Your task to perform on an android device: move a message to another label in the gmail app Image 0: 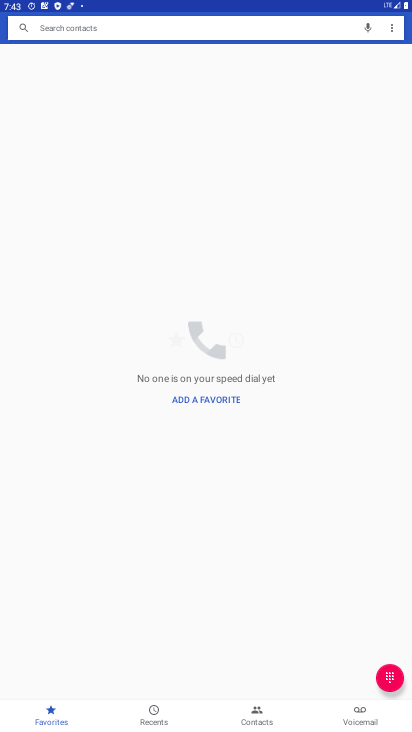
Step 0: press home button
Your task to perform on an android device: move a message to another label in the gmail app Image 1: 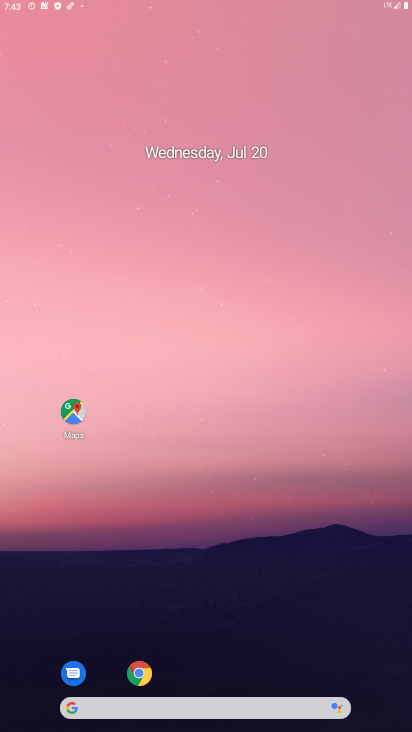
Step 1: drag from (396, 689) to (221, 37)
Your task to perform on an android device: move a message to another label in the gmail app Image 2: 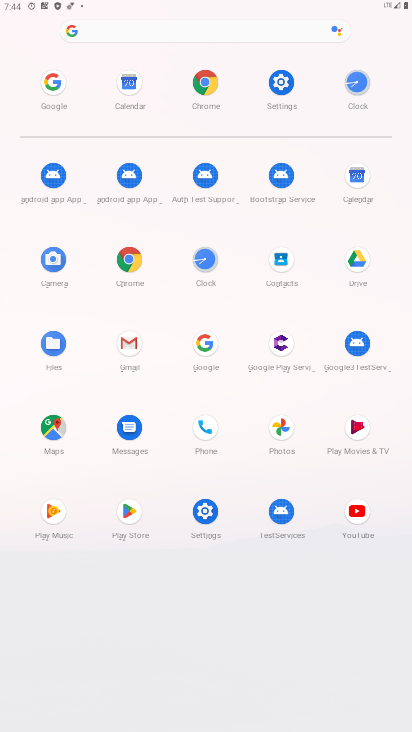
Step 2: click (128, 352)
Your task to perform on an android device: move a message to another label in the gmail app Image 3: 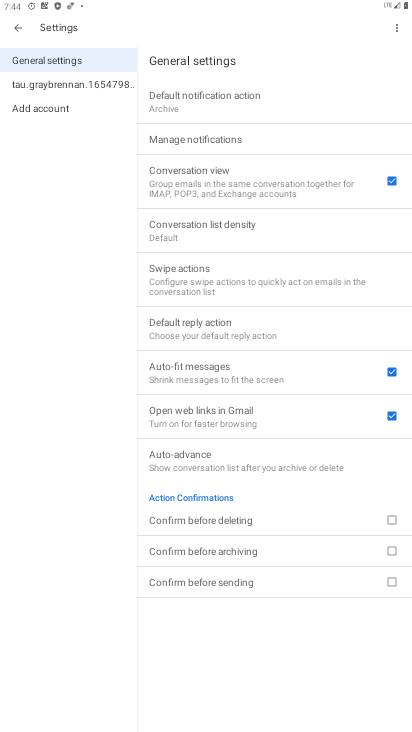
Step 3: task complete